Your task to perform on an android device: find snoozed emails in the gmail app Image 0: 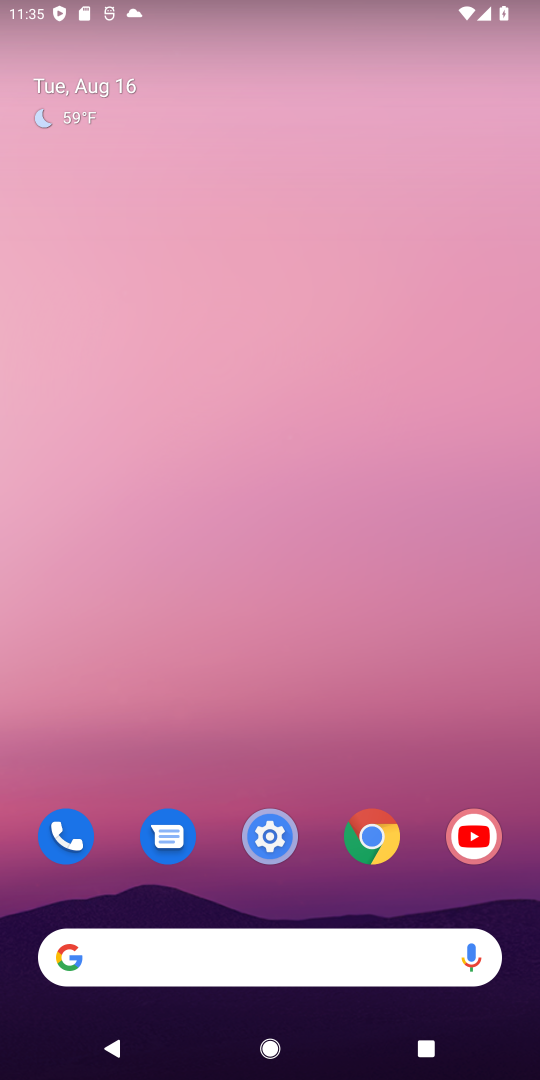
Step 0: drag from (183, 977) to (197, 117)
Your task to perform on an android device: find snoozed emails in the gmail app Image 1: 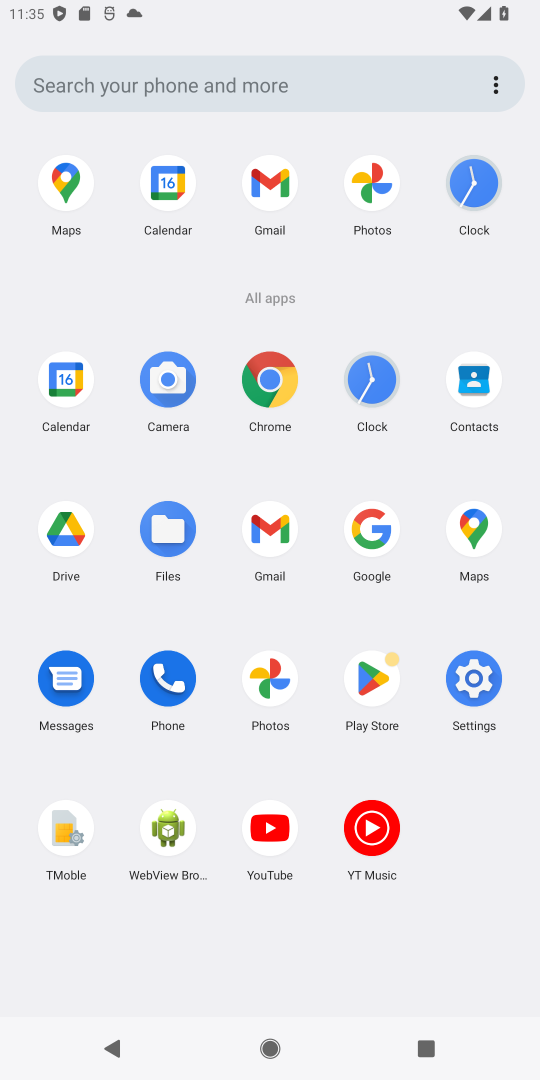
Step 1: click (266, 184)
Your task to perform on an android device: find snoozed emails in the gmail app Image 2: 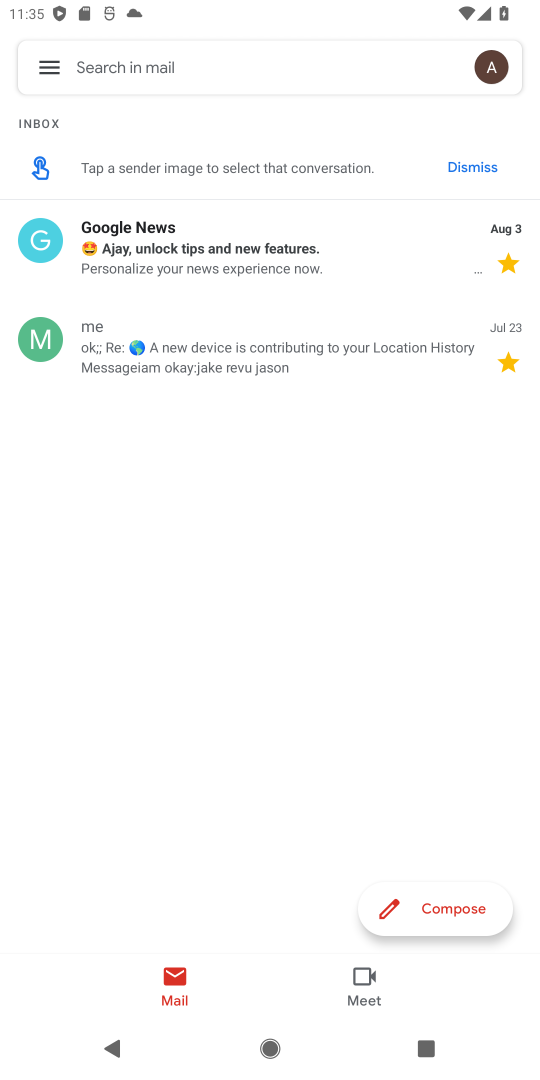
Step 2: click (46, 82)
Your task to perform on an android device: find snoozed emails in the gmail app Image 3: 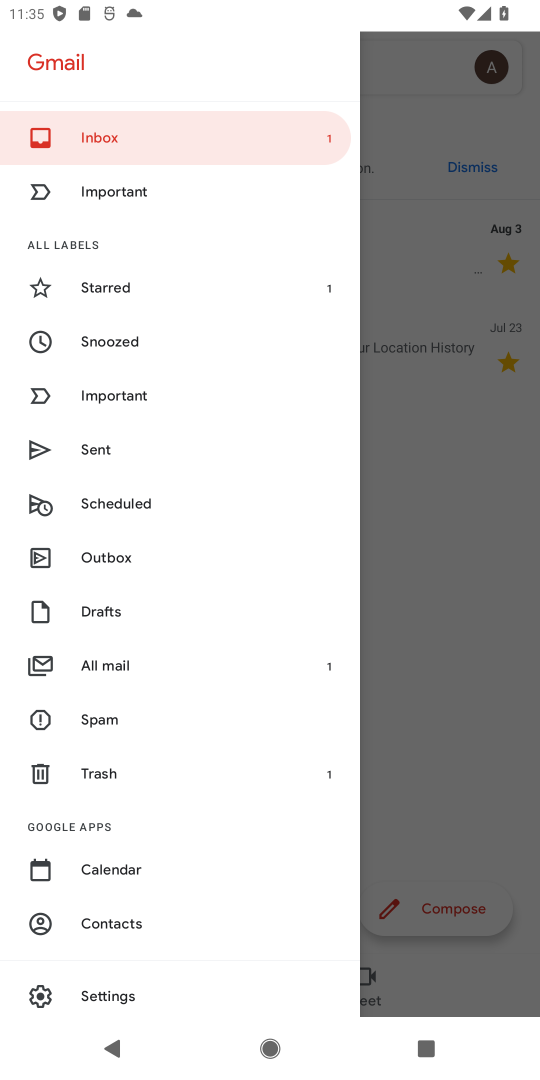
Step 3: click (131, 346)
Your task to perform on an android device: find snoozed emails in the gmail app Image 4: 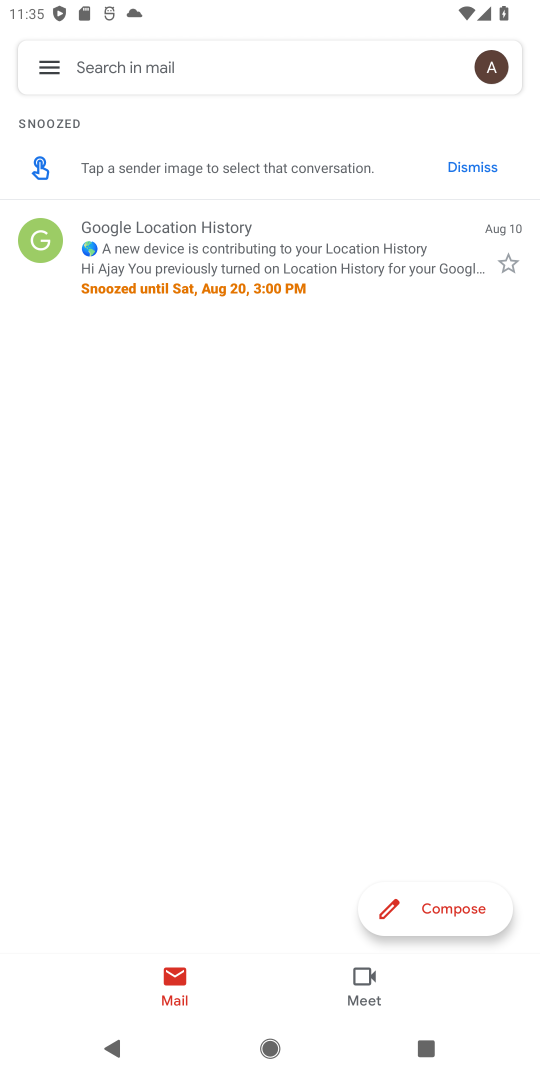
Step 4: task complete